Your task to perform on an android device: turn on sleep mode Image 0: 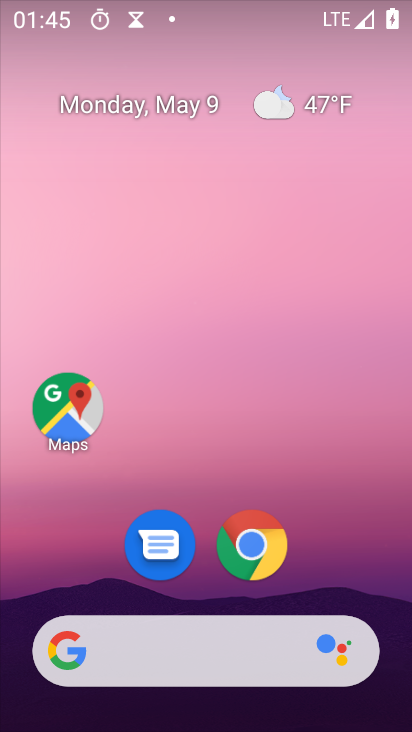
Step 0: drag from (311, 628) to (287, 60)
Your task to perform on an android device: turn on sleep mode Image 1: 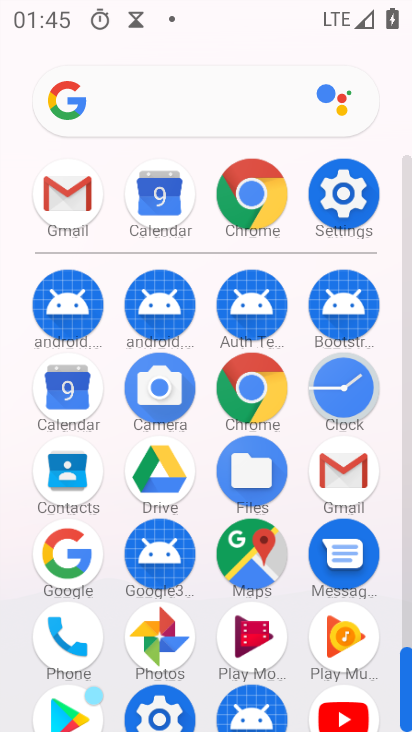
Step 1: click (335, 182)
Your task to perform on an android device: turn on sleep mode Image 2: 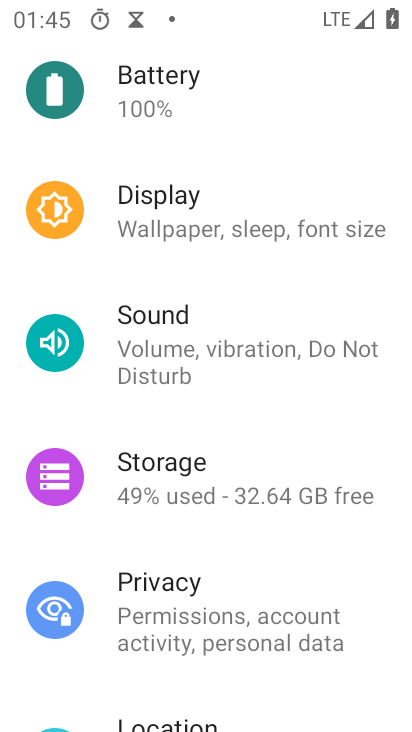
Step 2: drag from (247, 248) to (272, 548)
Your task to perform on an android device: turn on sleep mode Image 3: 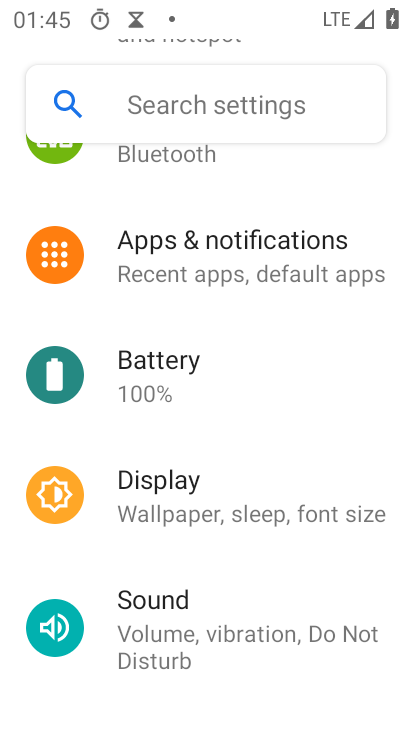
Step 3: drag from (281, 288) to (288, 618)
Your task to perform on an android device: turn on sleep mode Image 4: 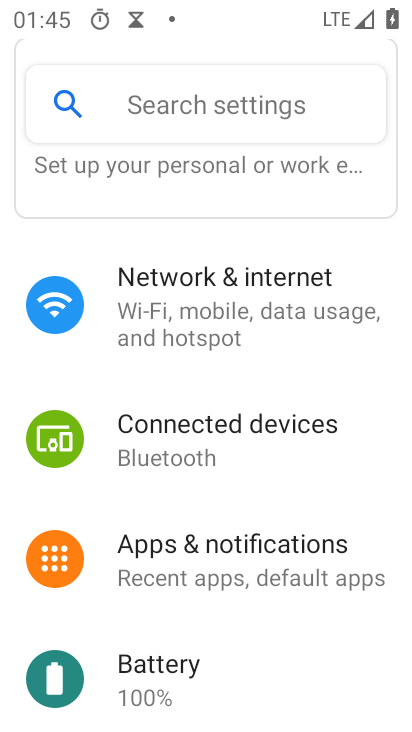
Step 4: drag from (303, 675) to (333, 156)
Your task to perform on an android device: turn on sleep mode Image 5: 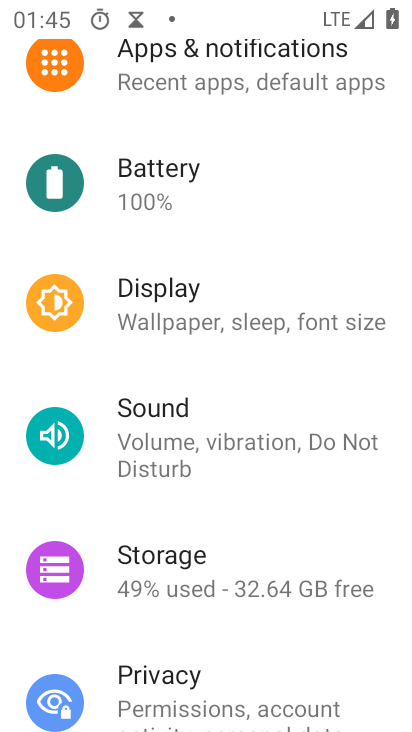
Step 5: click (291, 301)
Your task to perform on an android device: turn on sleep mode Image 6: 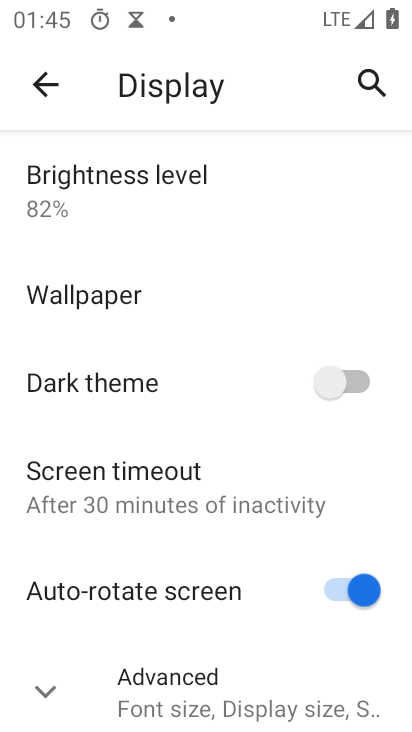
Step 6: task complete